Your task to perform on an android device: Open internet settings Image 0: 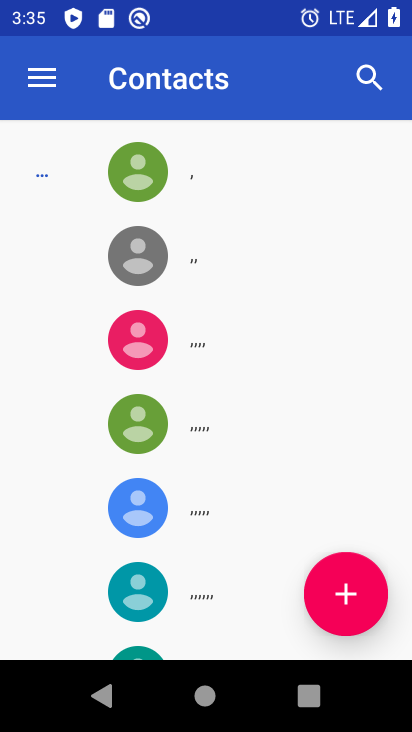
Step 0: press home button
Your task to perform on an android device: Open internet settings Image 1: 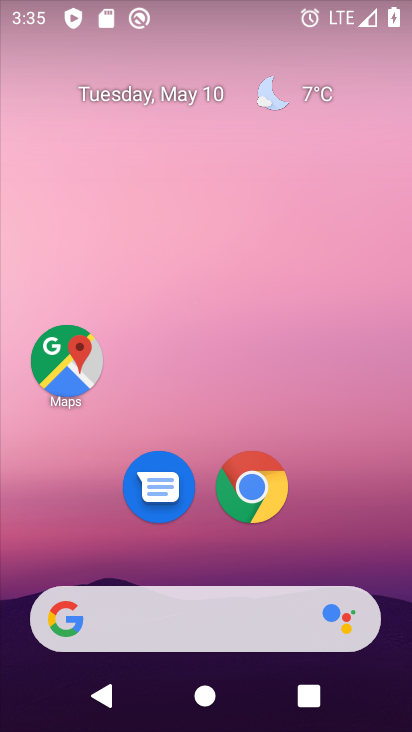
Step 1: drag from (352, 518) to (265, 164)
Your task to perform on an android device: Open internet settings Image 2: 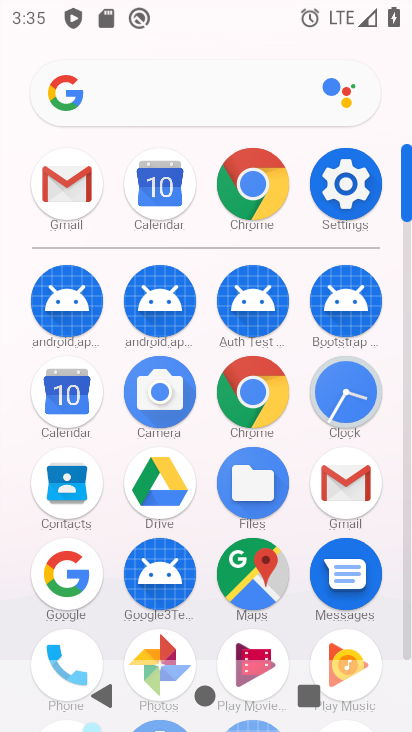
Step 2: click (345, 189)
Your task to perform on an android device: Open internet settings Image 3: 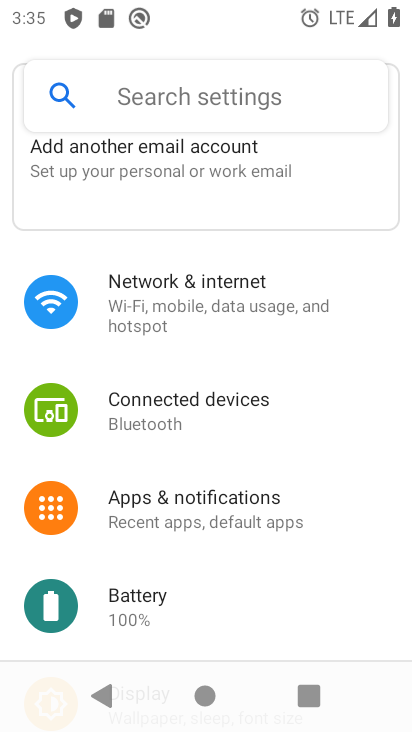
Step 3: click (155, 302)
Your task to perform on an android device: Open internet settings Image 4: 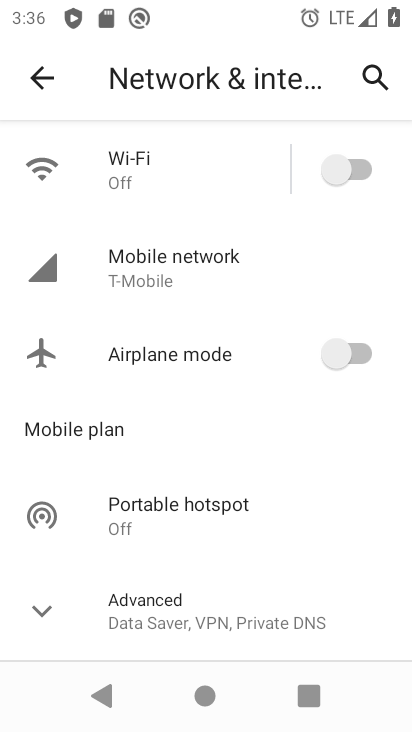
Step 4: task complete